Your task to perform on an android device: Open location settings Image 0: 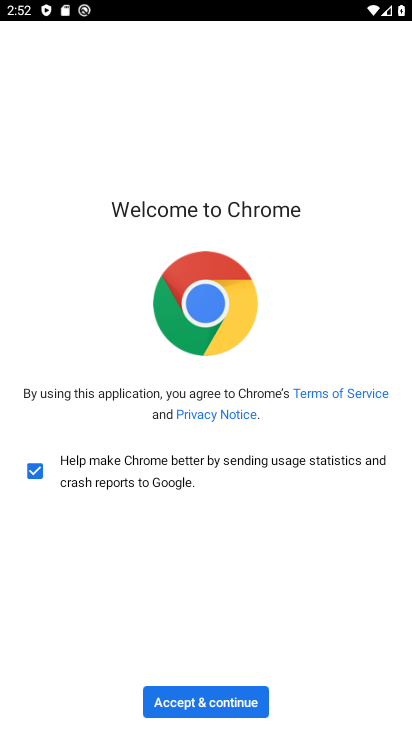
Step 0: press back button
Your task to perform on an android device: Open location settings Image 1: 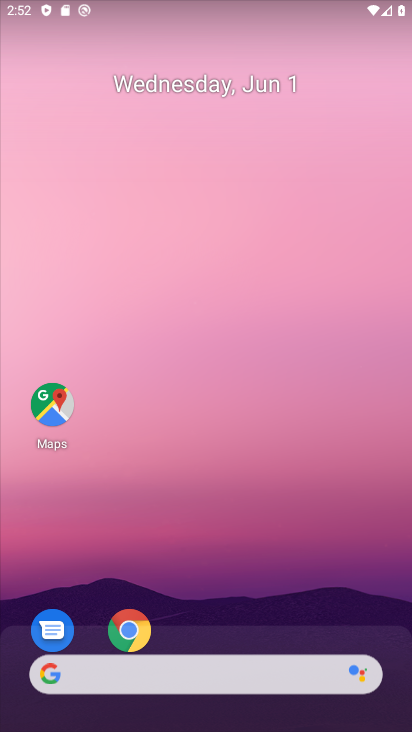
Step 1: drag from (228, 544) to (271, 27)
Your task to perform on an android device: Open location settings Image 2: 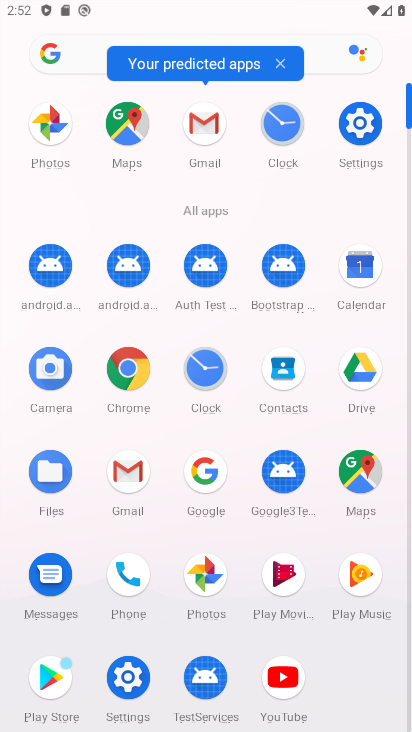
Step 2: click (359, 106)
Your task to perform on an android device: Open location settings Image 3: 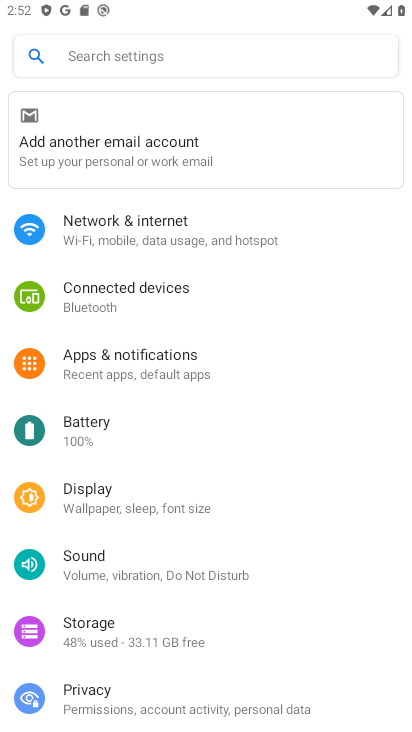
Step 3: drag from (118, 666) to (180, 148)
Your task to perform on an android device: Open location settings Image 4: 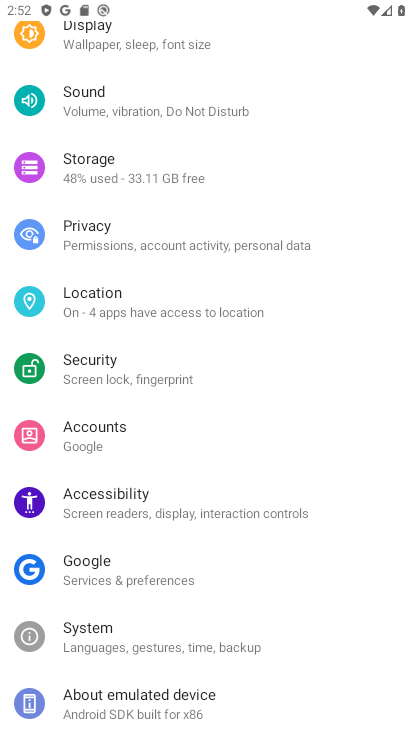
Step 4: click (111, 295)
Your task to perform on an android device: Open location settings Image 5: 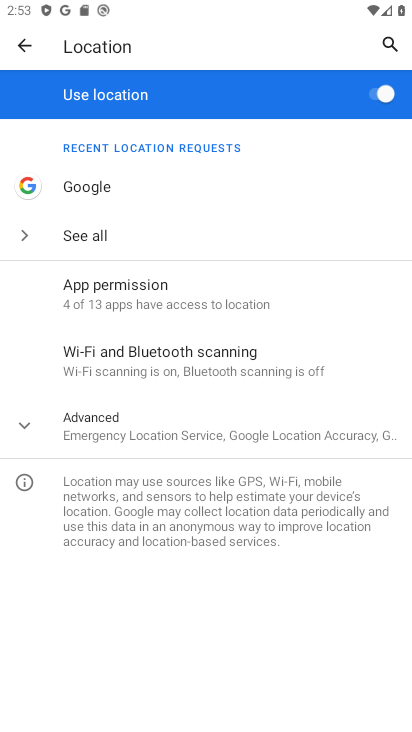
Step 5: task complete